Your task to perform on an android device: open app "TextNow: Call + Text Unlimited" Image 0: 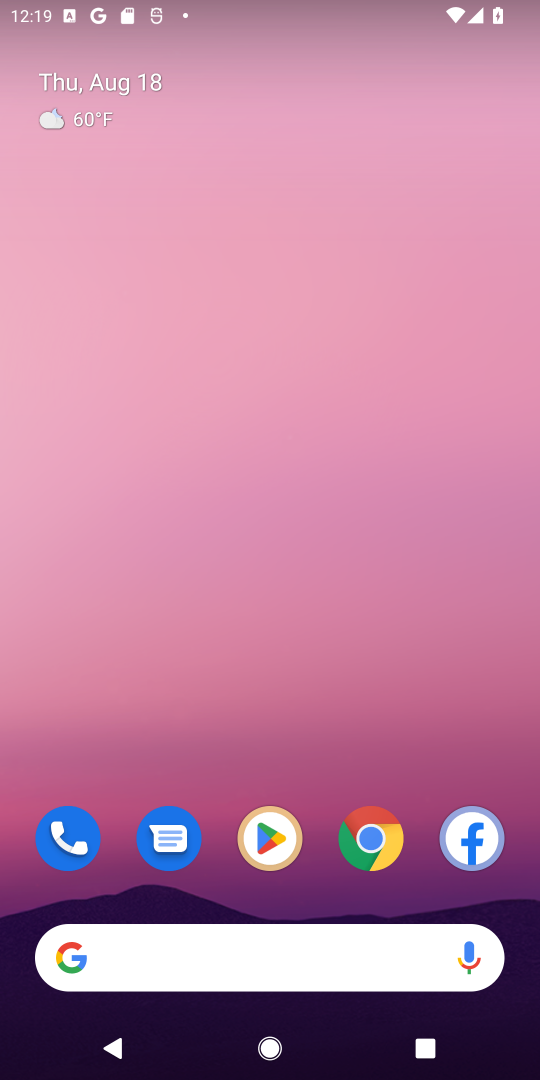
Step 0: click (301, 819)
Your task to perform on an android device: open app "TextNow: Call + Text Unlimited" Image 1: 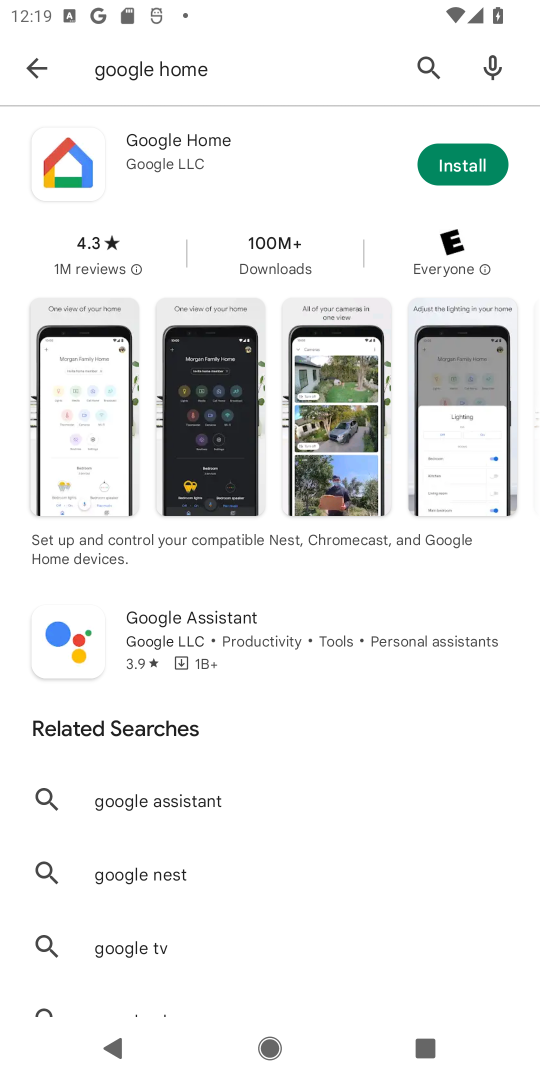
Step 1: click (428, 54)
Your task to perform on an android device: open app "TextNow: Call + Text Unlimited" Image 2: 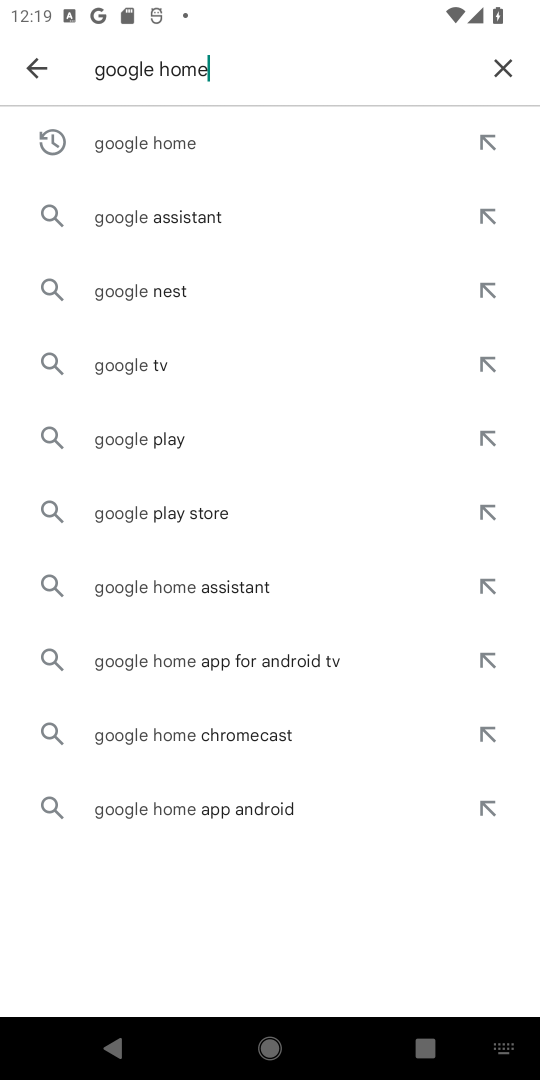
Step 2: click (496, 71)
Your task to perform on an android device: open app "TextNow: Call + Text Unlimited" Image 3: 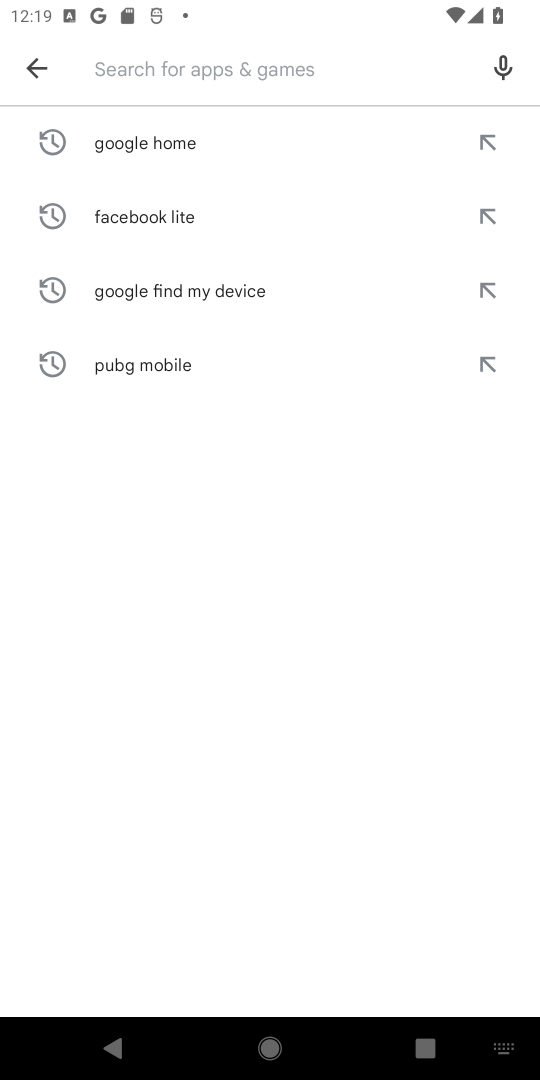
Step 3: type "TextNow: Call + Text Unlimited"
Your task to perform on an android device: open app "TextNow: Call + Text Unlimited" Image 4: 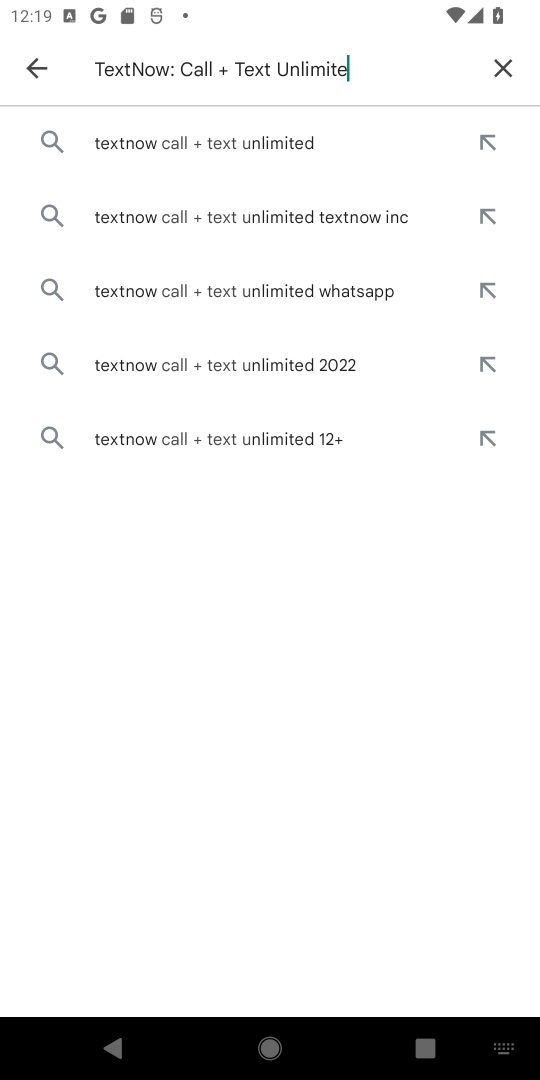
Step 4: type ""
Your task to perform on an android device: open app "TextNow: Call + Text Unlimited" Image 5: 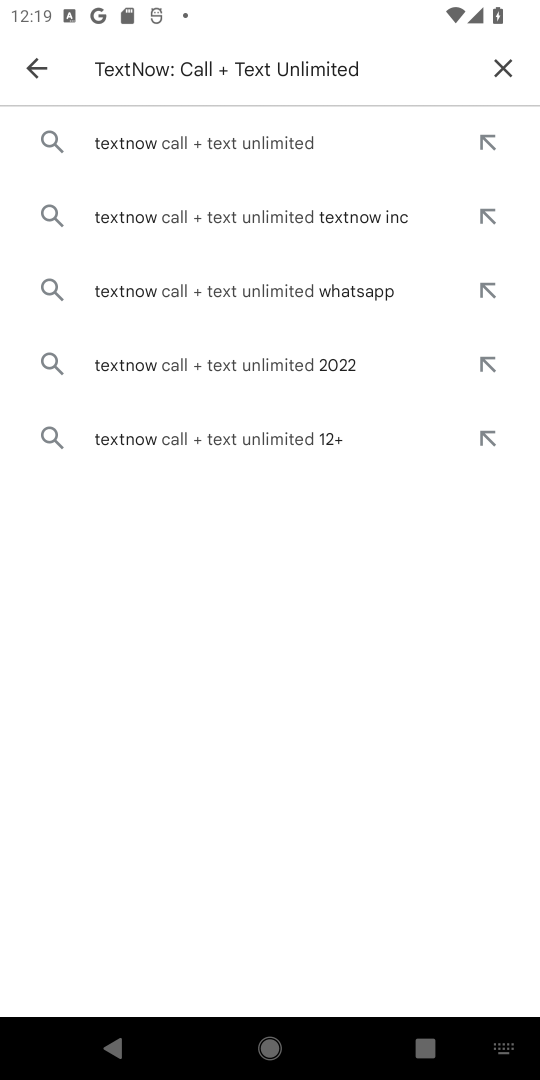
Step 5: click (212, 142)
Your task to perform on an android device: open app "TextNow: Call + Text Unlimited" Image 6: 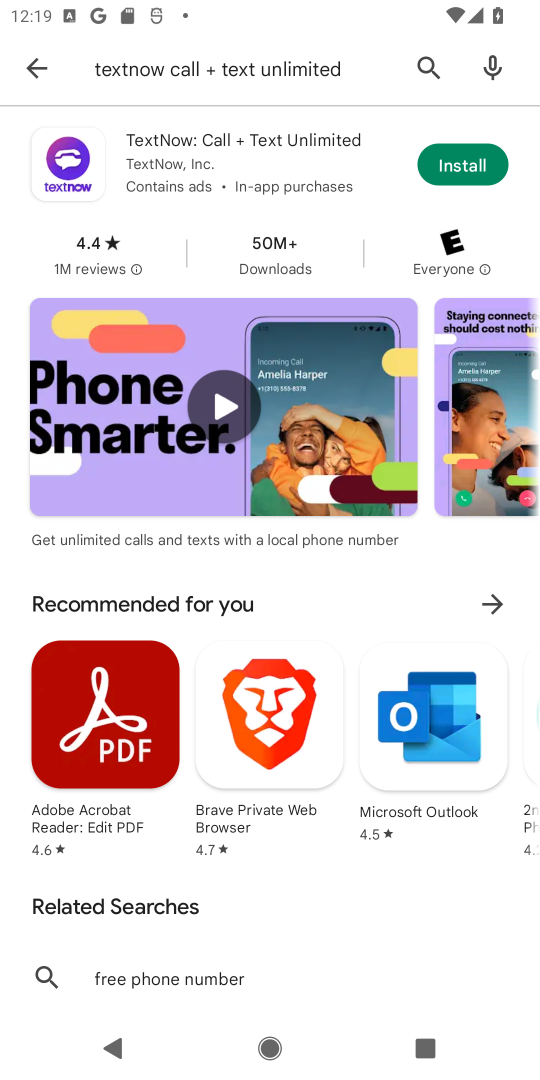
Step 6: task complete